Your task to perform on an android device: delete the emails in spam in the gmail app Image 0: 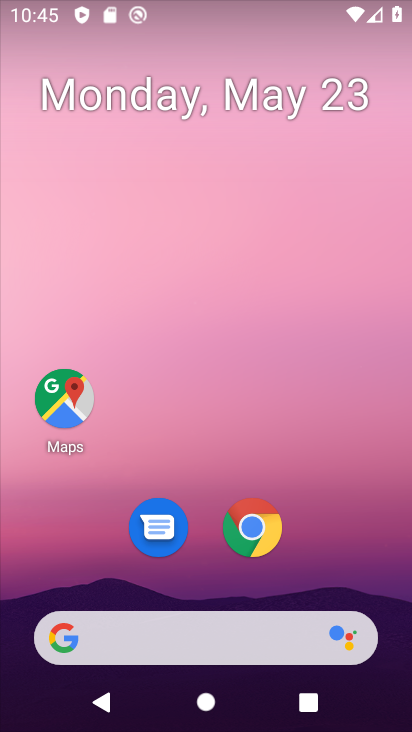
Step 0: drag from (196, 564) to (271, 4)
Your task to perform on an android device: delete the emails in spam in the gmail app Image 1: 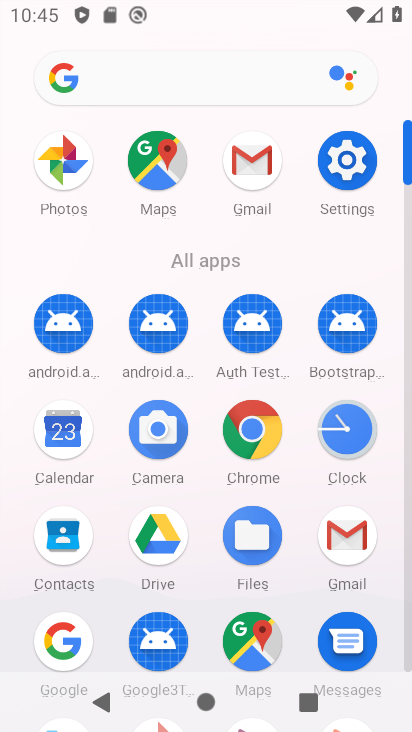
Step 1: click (338, 523)
Your task to perform on an android device: delete the emails in spam in the gmail app Image 2: 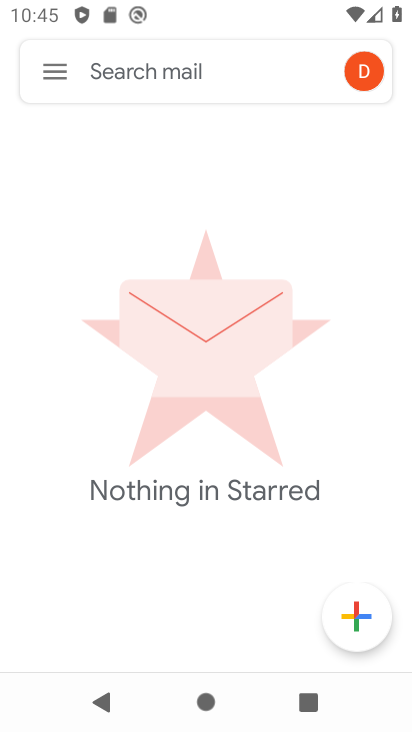
Step 2: click (60, 79)
Your task to perform on an android device: delete the emails in spam in the gmail app Image 3: 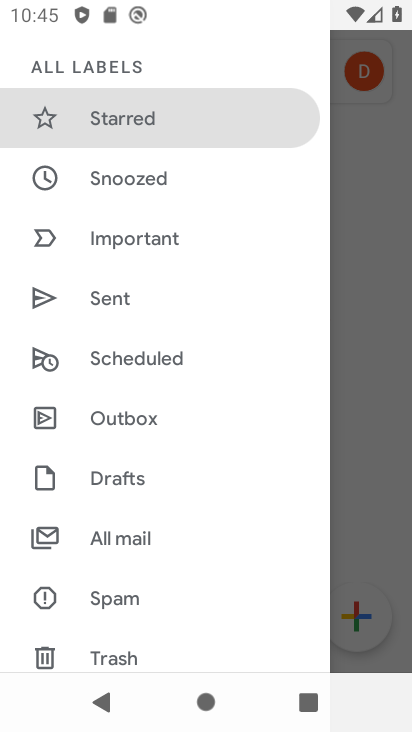
Step 3: click (111, 587)
Your task to perform on an android device: delete the emails in spam in the gmail app Image 4: 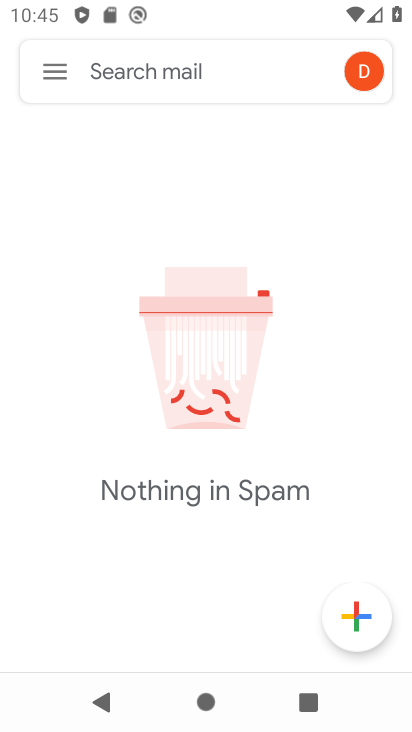
Step 4: task complete